Your task to perform on an android device: turn on location history Image 0: 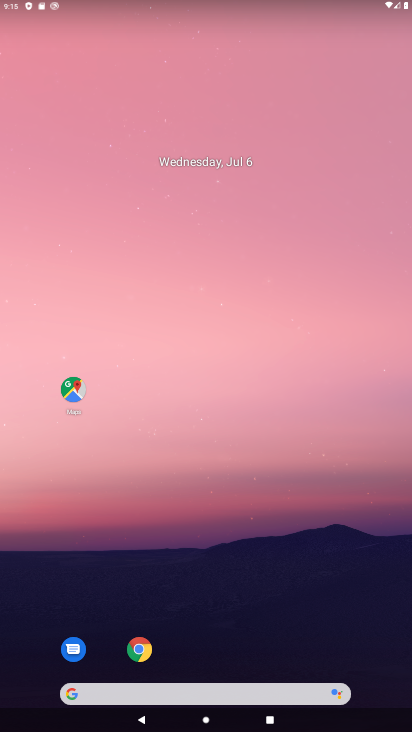
Step 0: press home button
Your task to perform on an android device: turn on location history Image 1: 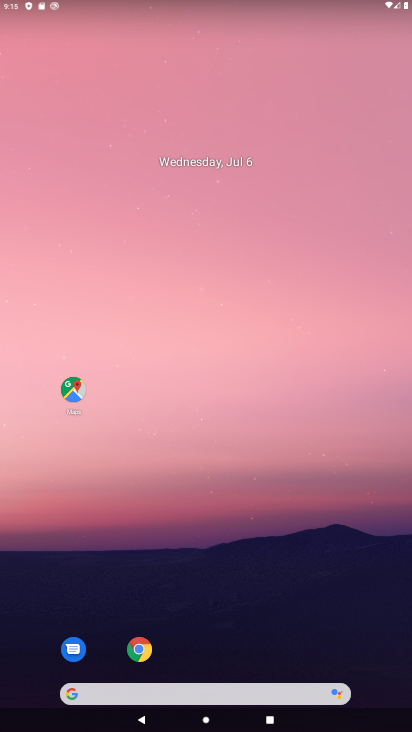
Step 1: drag from (208, 665) to (230, 328)
Your task to perform on an android device: turn on location history Image 2: 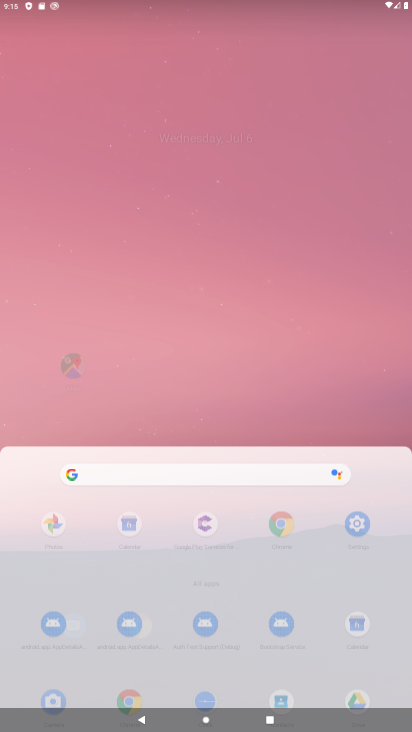
Step 2: click (244, 65)
Your task to perform on an android device: turn on location history Image 3: 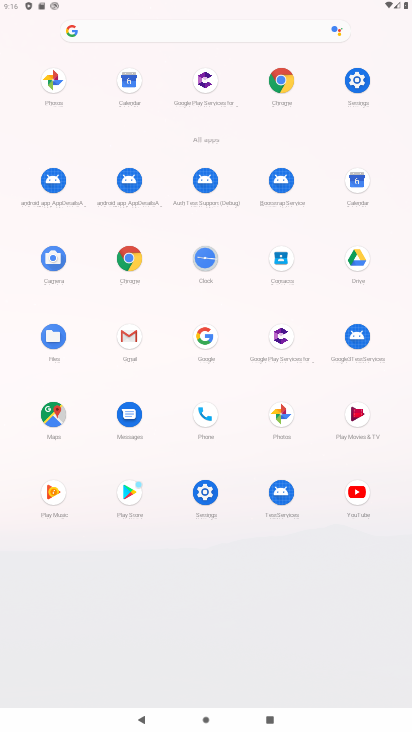
Step 3: click (356, 76)
Your task to perform on an android device: turn on location history Image 4: 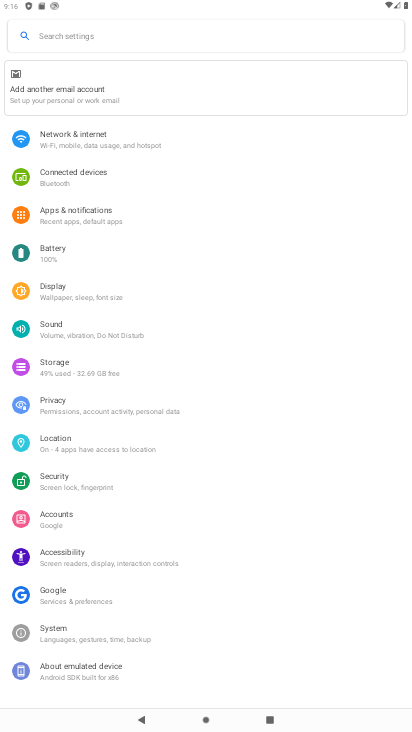
Step 4: click (96, 439)
Your task to perform on an android device: turn on location history Image 5: 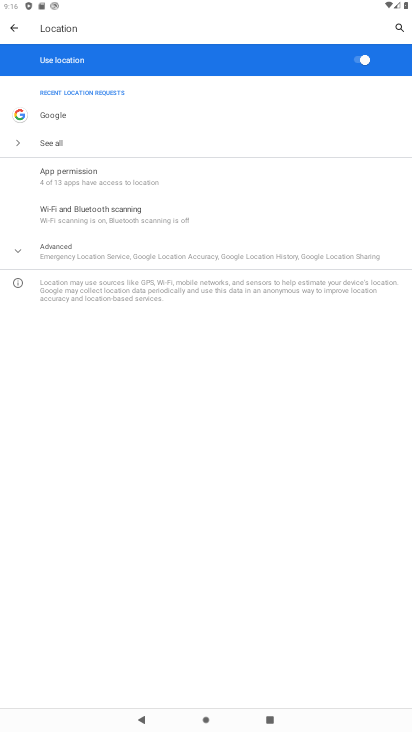
Step 5: click (18, 249)
Your task to perform on an android device: turn on location history Image 6: 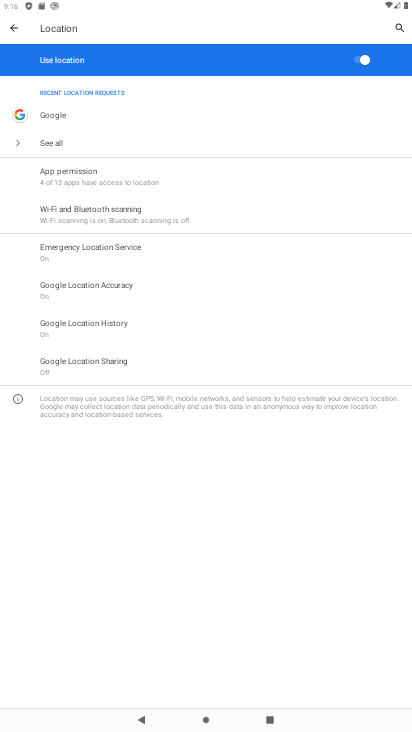
Step 6: click (119, 326)
Your task to perform on an android device: turn on location history Image 7: 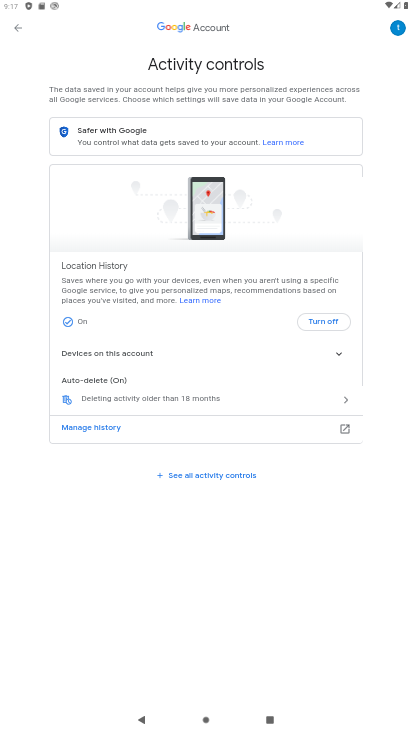
Step 7: click (327, 322)
Your task to perform on an android device: turn on location history Image 8: 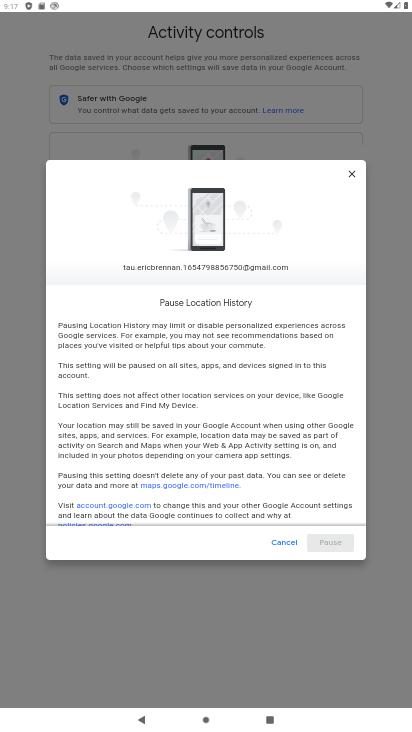
Step 8: drag from (273, 488) to (259, 218)
Your task to perform on an android device: turn on location history Image 9: 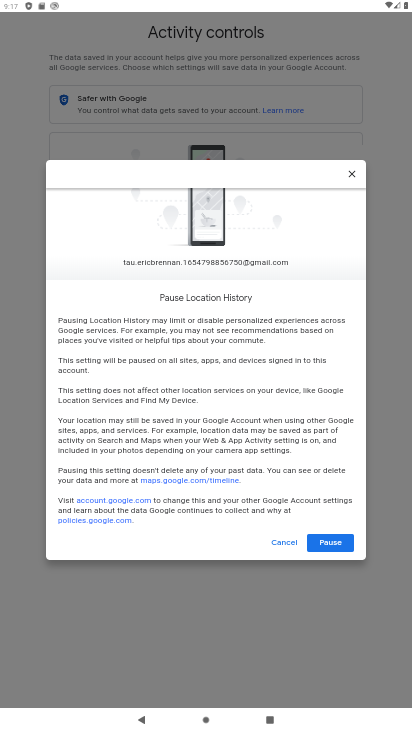
Step 9: click (326, 547)
Your task to perform on an android device: turn on location history Image 10: 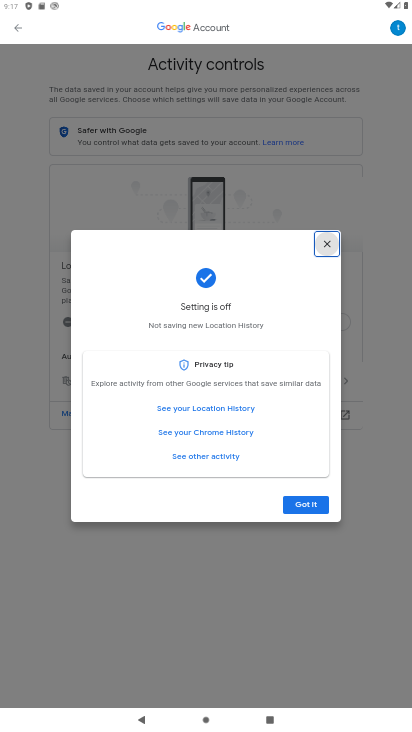
Step 10: click (303, 507)
Your task to perform on an android device: turn on location history Image 11: 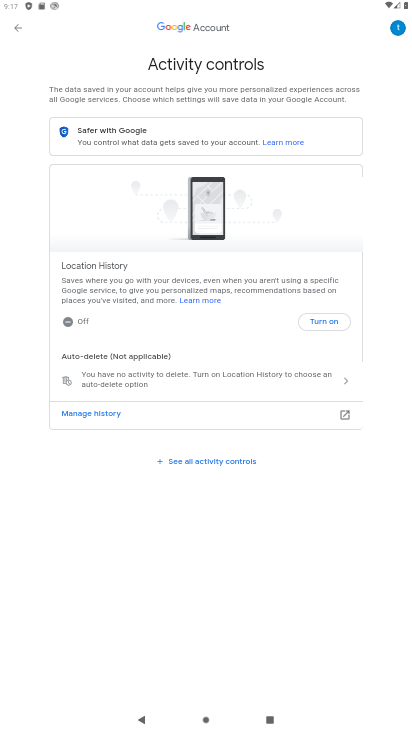
Step 11: task complete